Your task to perform on an android device: toggle priority inbox in the gmail app Image 0: 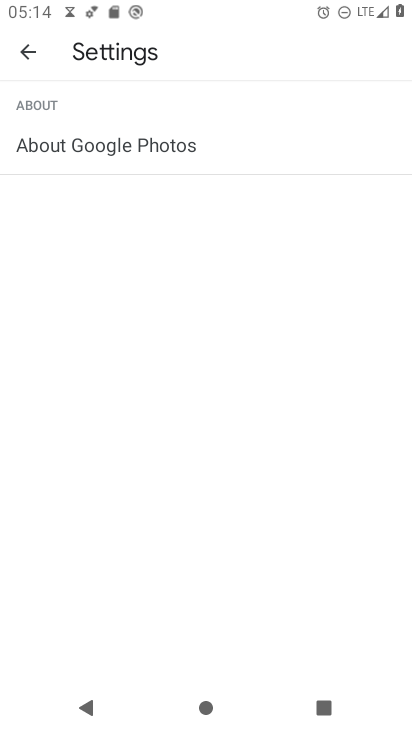
Step 0: press back button
Your task to perform on an android device: toggle priority inbox in the gmail app Image 1: 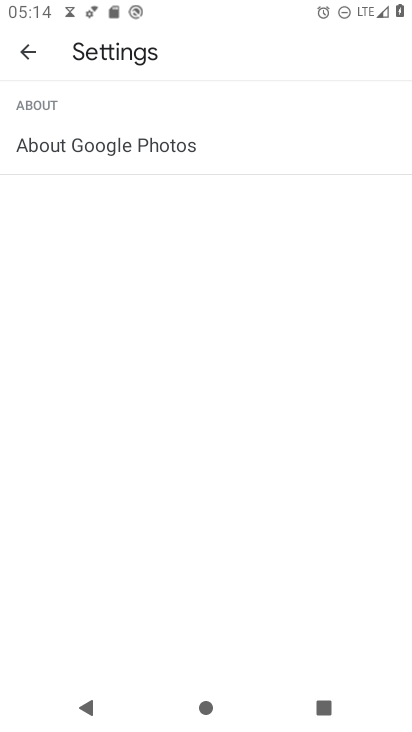
Step 1: press back button
Your task to perform on an android device: toggle priority inbox in the gmail app Image 2: 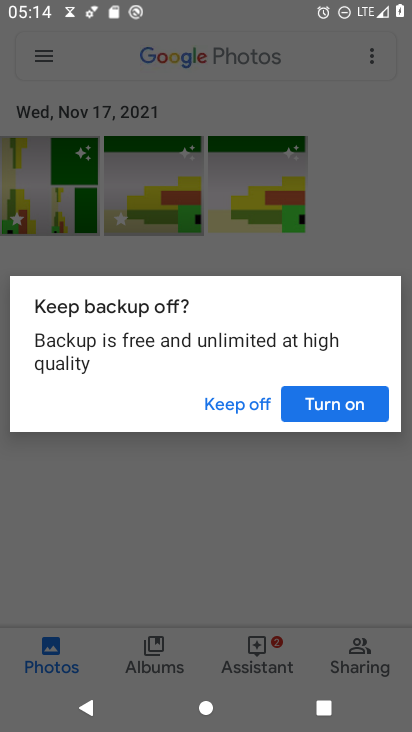
Step 2: press home button
Your task to perform on an android device: toggle priority inbox in the gmail app Image 3: 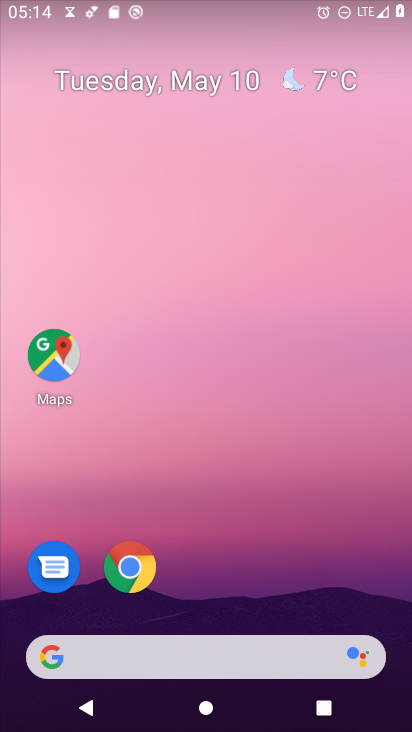
Step 3: drag from (233, 580) to (216, 62)
Your task to perform on an android device: toggle priority inbox in the gmail app Image 4: 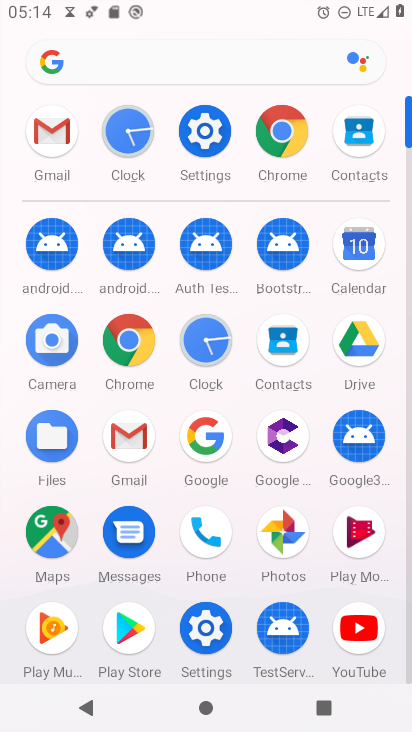
Step 4: click (52, 130)
Your task to perform on an android device: toggle priority inbox in the gmail app Image 5: 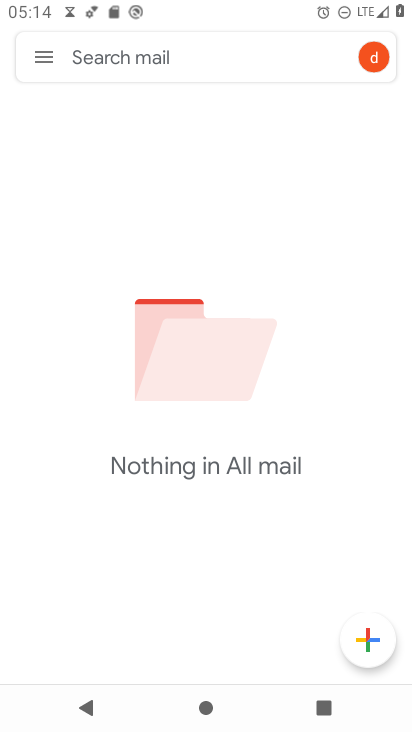
Step 5: click (44, 57)
Your task to perform on an android device: toggle priority inbox in the gmail app Image 6: 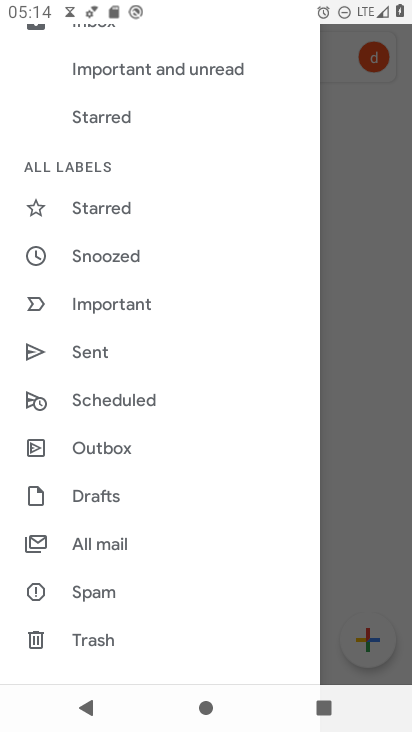
Step 6: drag from (104, 570) to (125, 440)
Your task to perform on an android device: toggle priority inbox in the gmail app Image 7: 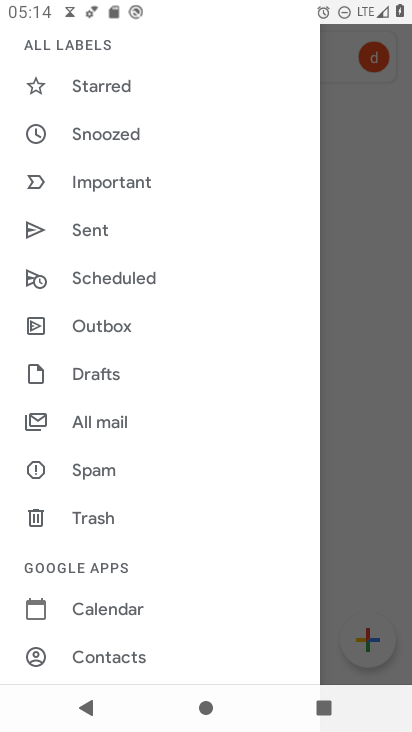
Step 7: drag from (99, 624) to (137, 523)
Your task to perform on an android device: toggle priority inbox in the gmail app Image 8: 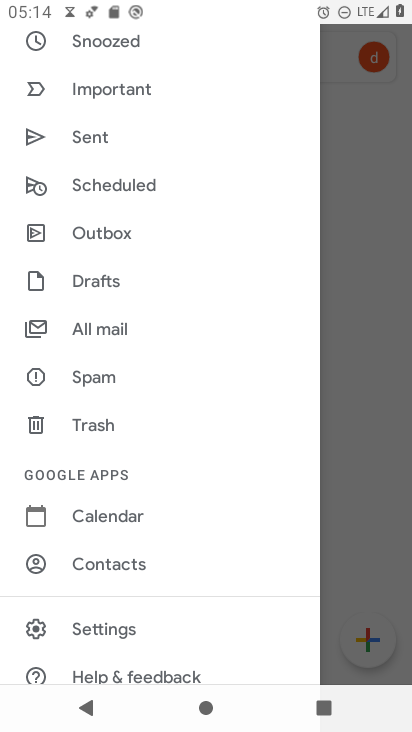
Step 8: click (105, 626)
Your task to perform on an android device: toggle priority inbox in the gmail app Image 9: 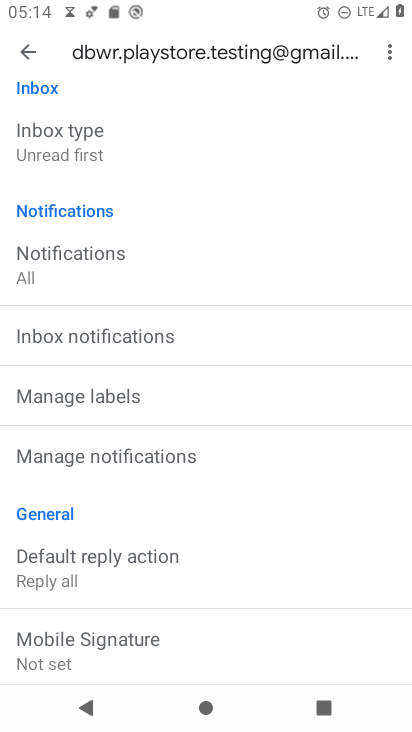
Step 9: drag from (146, 509) to (227, 339)
Your task to perform on an android device: toggle priority inbox in the gmail app Image 10: 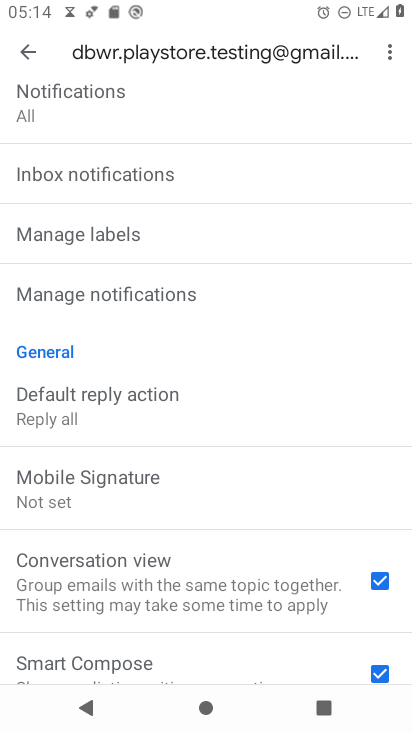
Step 10: drag from (140, 234) to (170, 422)
Your task to perform on an android device: toggle priority inbox in the gmail app Image 11: 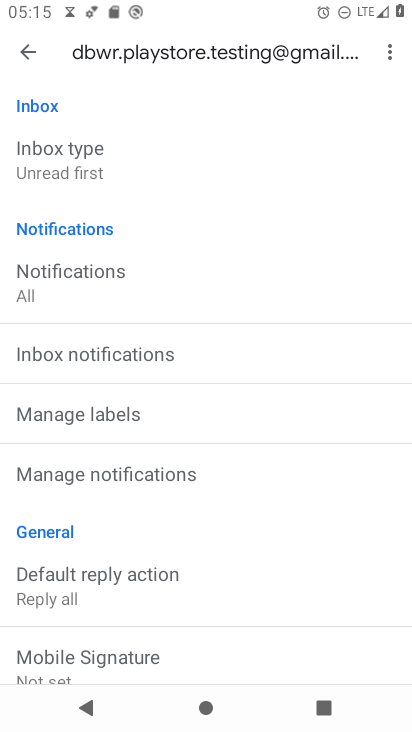
Step 11: click (77, 177)
Your task to perform on an android device: toggle priority inbox in the gmail app Image 12: 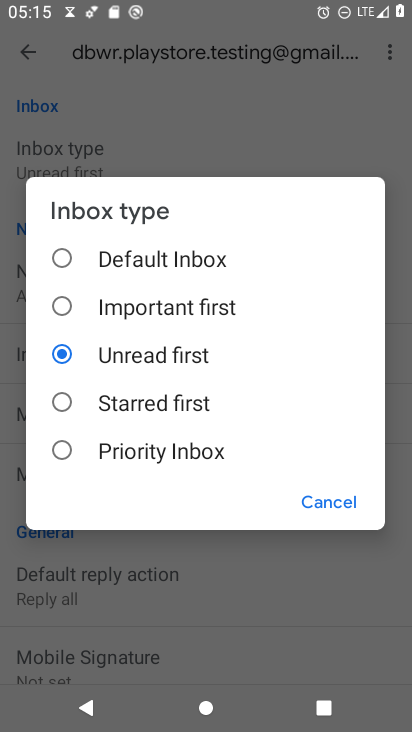
Step 12: click (68, 451)
Your task to perform on an android device: toggle priority inbox in the gmail app Image 13: 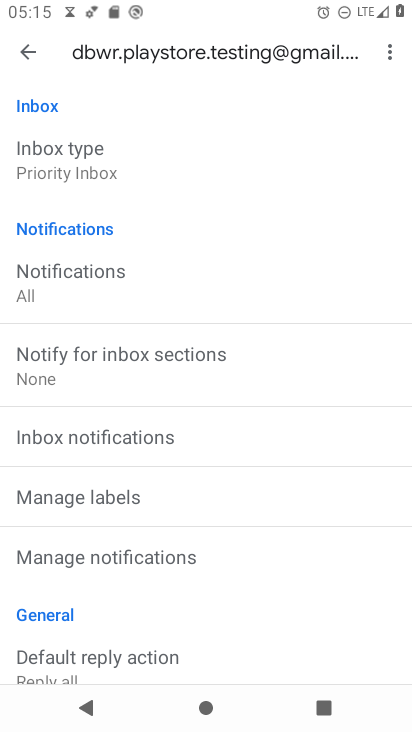
Step 13: task complete